Your task to perform on an android device: change notification settings in the gmail app Image 0: 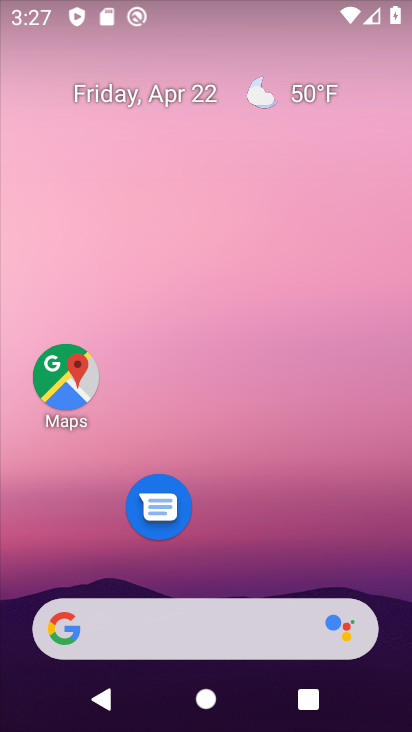
Step 0: click (278, 105)
Your task to perform on an android device: change notification settings in the gmail app Image 1: 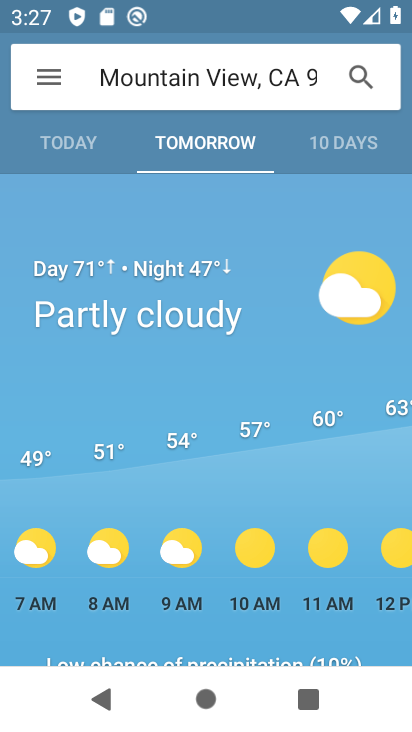
Step 1: press home button
Your task to perform on an android device: change notification settings in the gmail app Image 2: 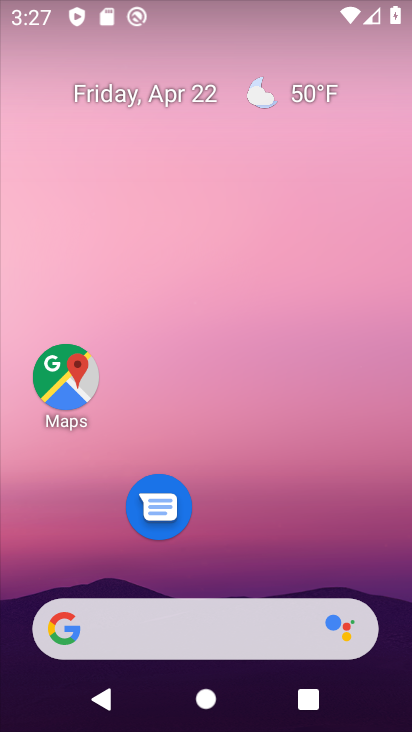
Step 2: drag from (257, 439) to (303, 59)
Your task to perform on an android device: change notification settings in the gmail app Image 3: 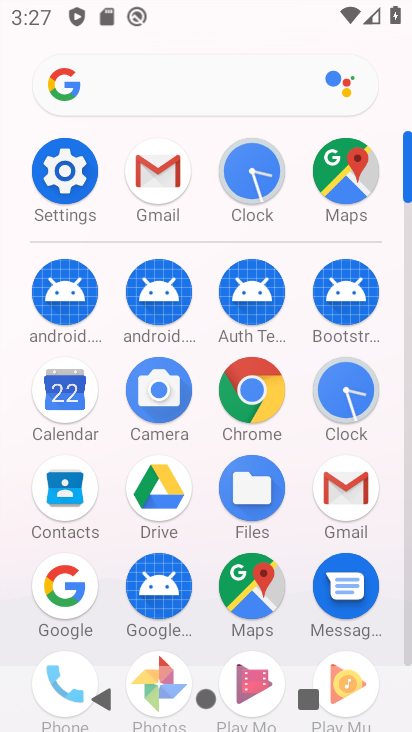
Step 3: click (66, 163)
Your task to perform on an android device: change notification settings in the gmail app Image 4: 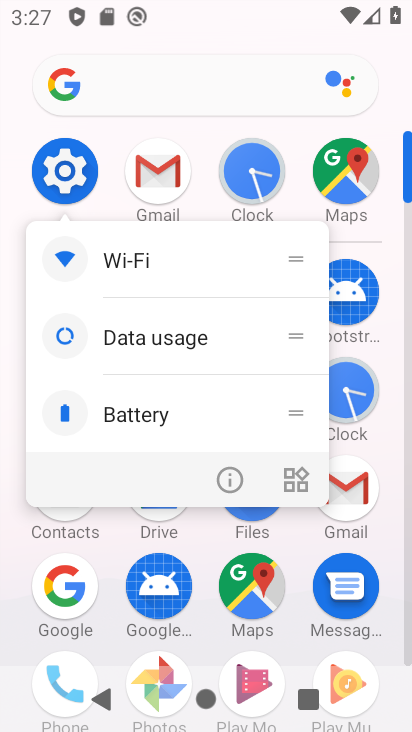
Step 4: click (65, 162)
Your task to perform on an android device: change notification settings in the gmail app Image 5: 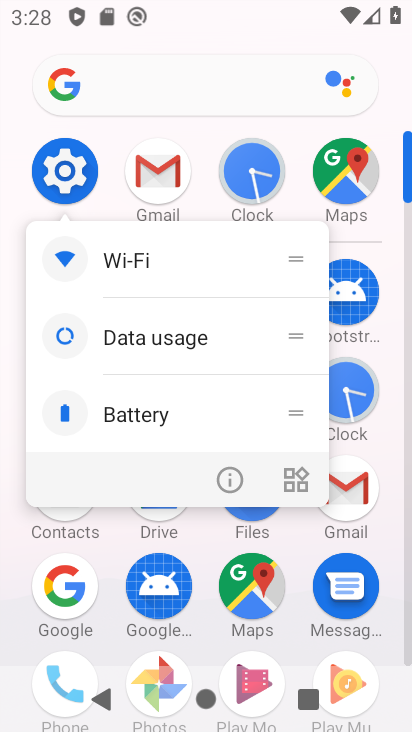
Step 5: click (64, 169)
Your task to perform on an android device: change notification settings in the gmail app Image 6: 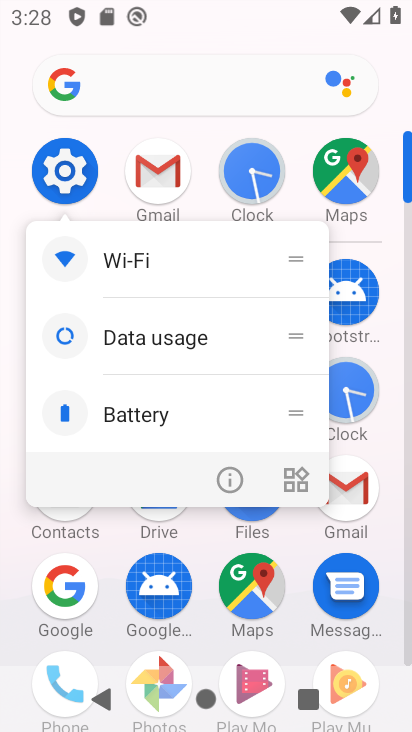
Step 6: click (64, 169)
Your task to perform on an android device: change notification settings in the gmail app Image 7: 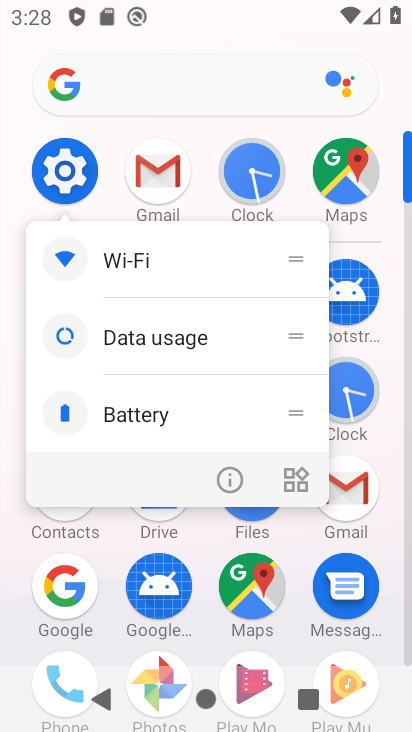
Step 7: click (150, 175)
Your task to perform on an android device: change notification settings in the gmail app Image 8: 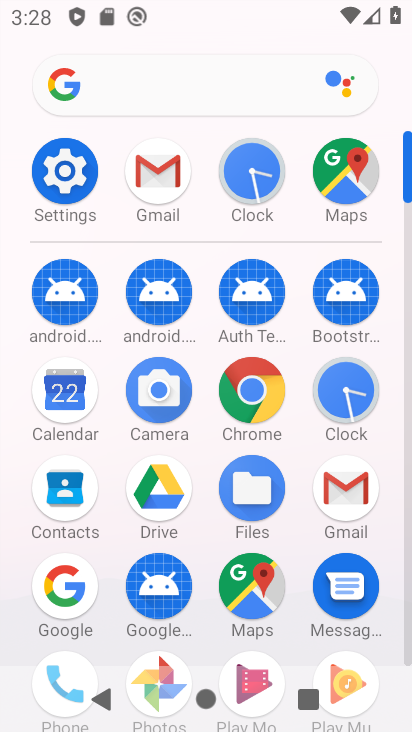
Step 8: click (157, 167)
Your task to perform on an android device: change notification settings in the gmail app Image 9: 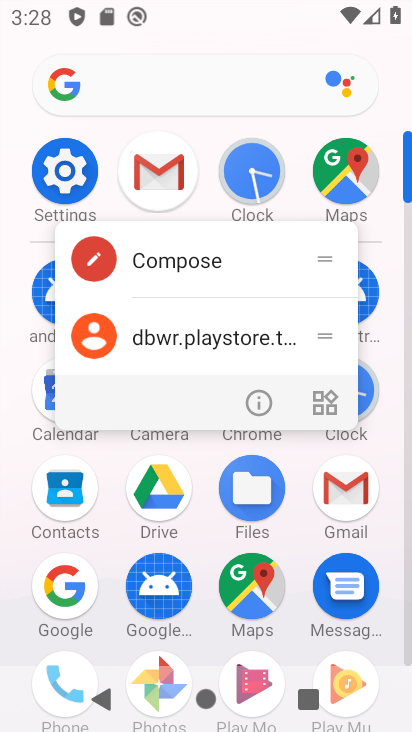
Step 9: click (249, 396)
Your task to perform on an android device: change notification settings in the gmail app Image 10: 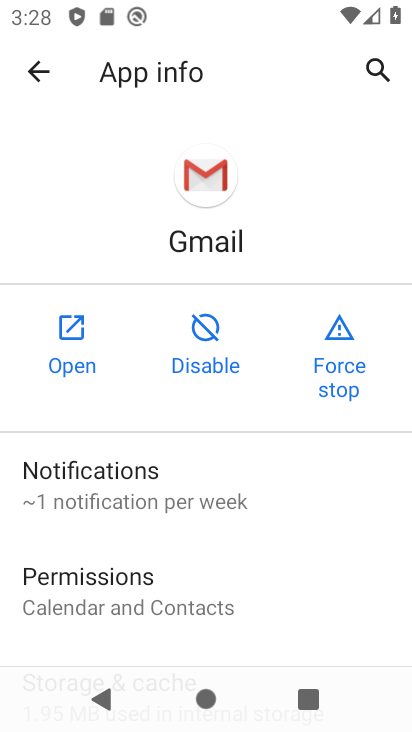
Step 10: click (164, 473)
Your task to perform on an android device: change notification settings in the gmail app Image 11: 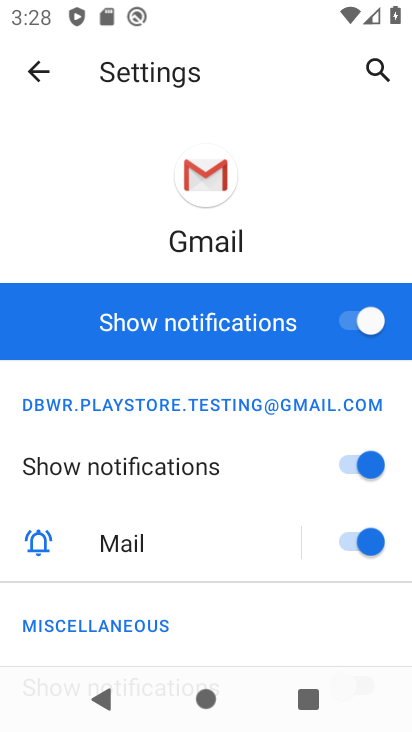
Step 11: drag from (177, 563) to (259, 144)
Your task to perform on an android device: change notification settings in the gmail app Image 12: 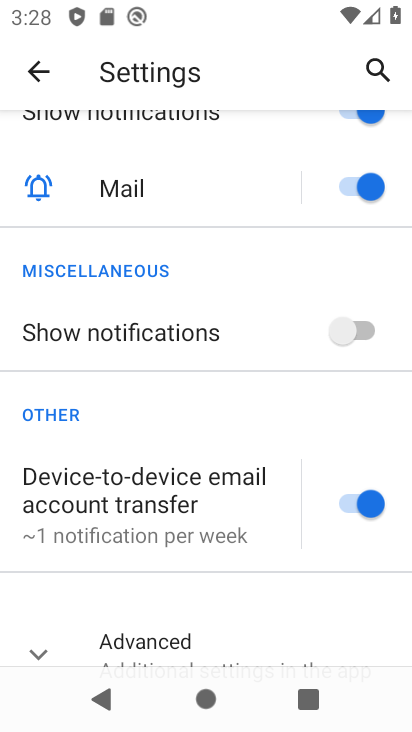
Step 12: click (354, 325)
Your task to perform on an android device: change notification settings in the gmail app Image 13: 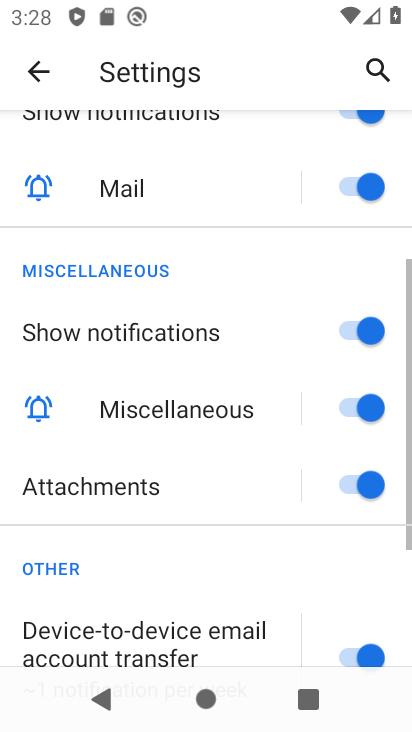
Step 13: task complete